Your task to perform on an android device: install app "Gmail" Image 0: 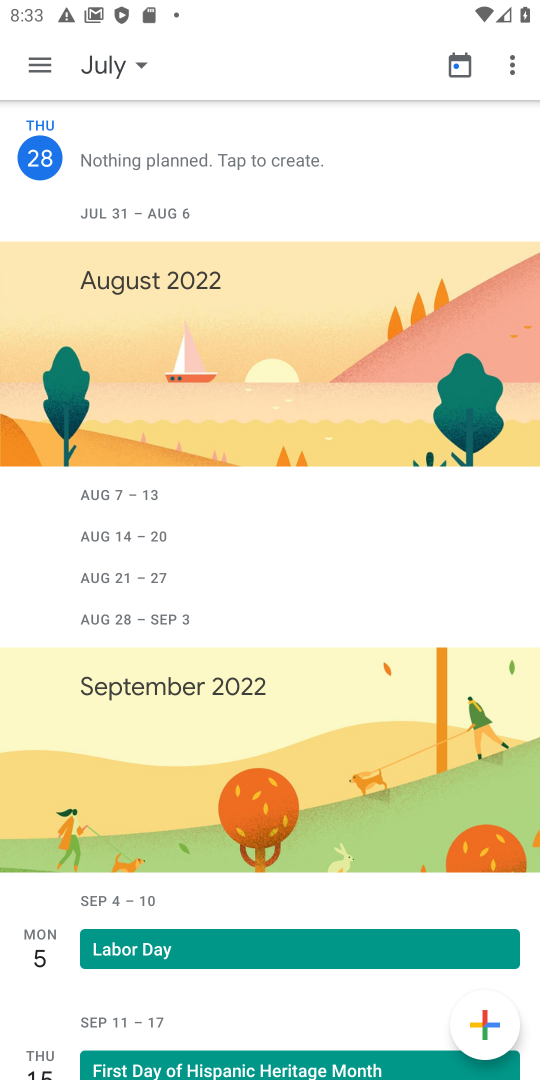
Step 0: press home button
Your task to perform on an android device: install app "Gmail" Image 1: 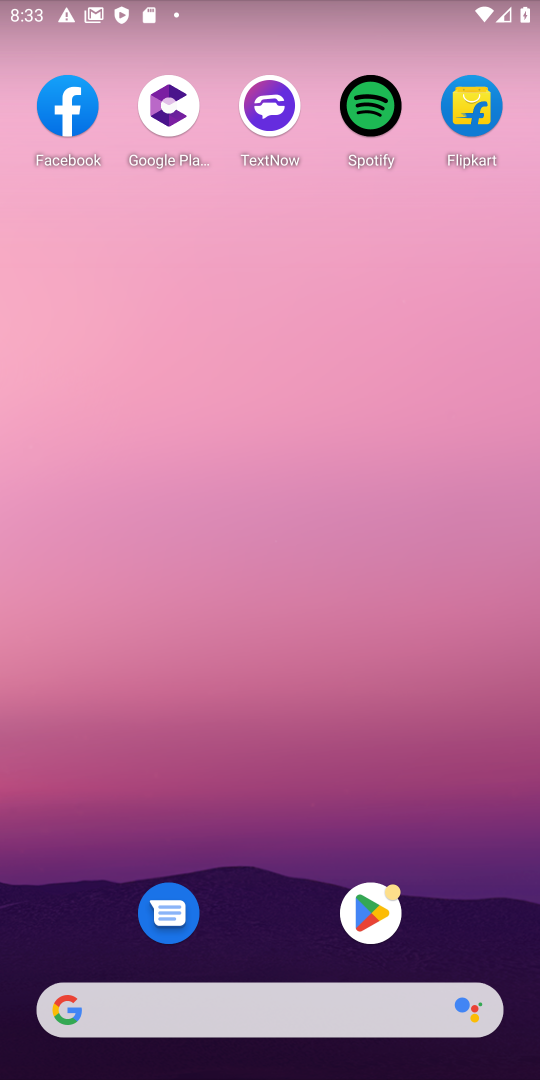
Step 1: click (377, 908)
Your task to perform on an android device: install app "Gmail" Image 2: 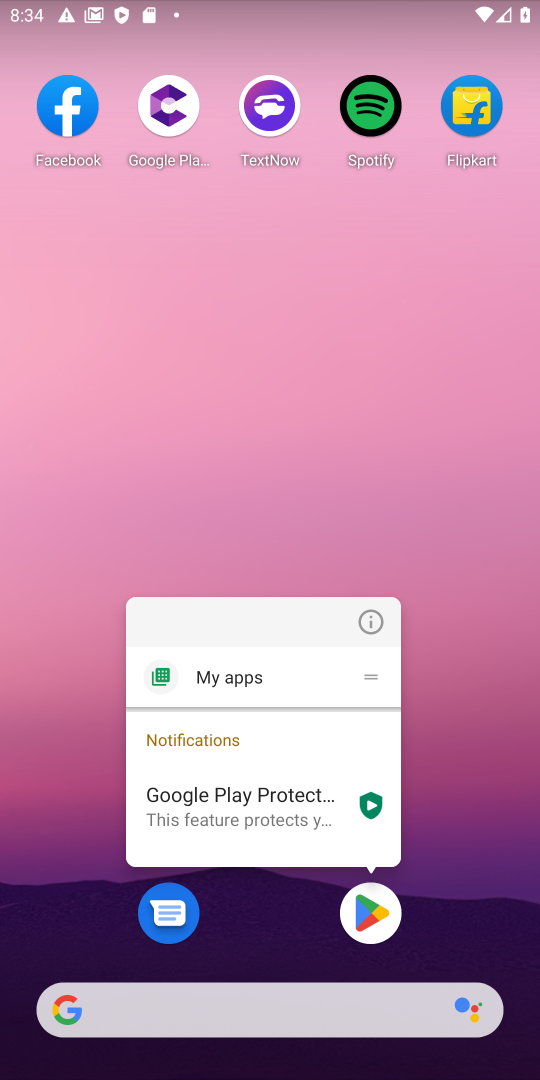
Step 2: click (371, 926)
Your task to perform on an android device: install app "Gmail" Image 3: 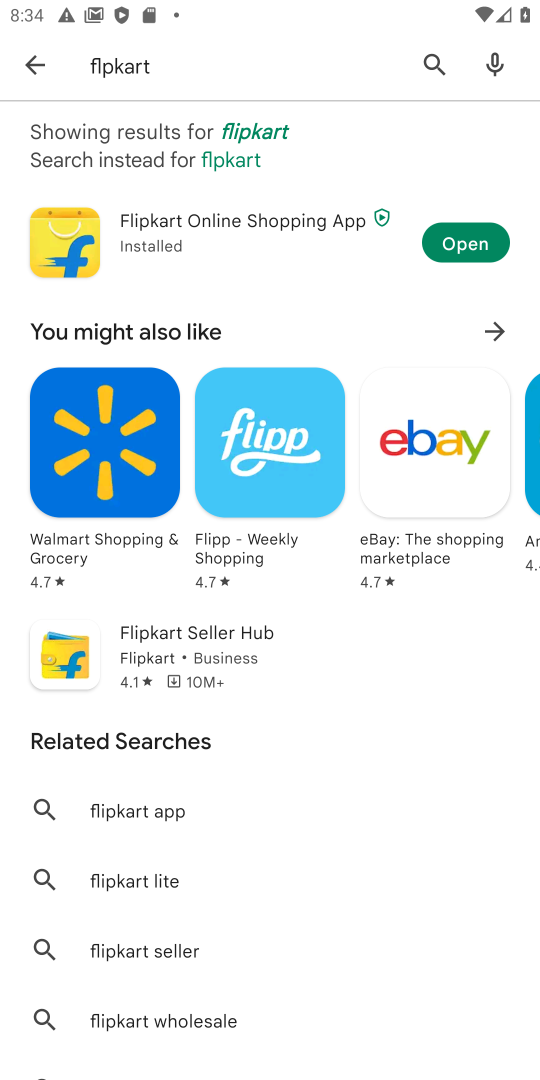
Step 3: click (432, 72)
Your task to perform on an android device: install app "Gmail" Image 4: 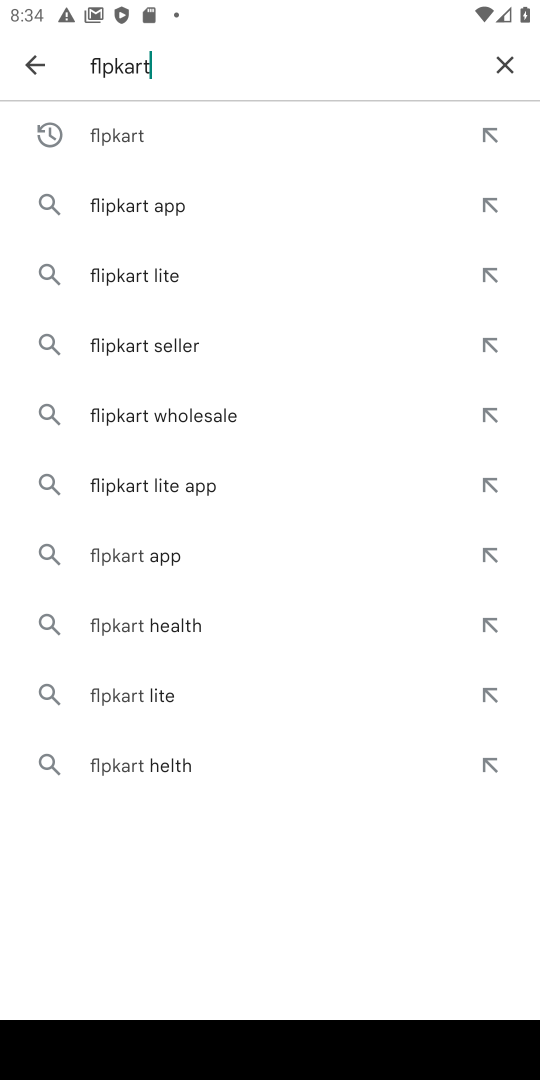
Step 4: click (499, 63)
Your task to perform on an android device: install app "Gmail" Image 5: 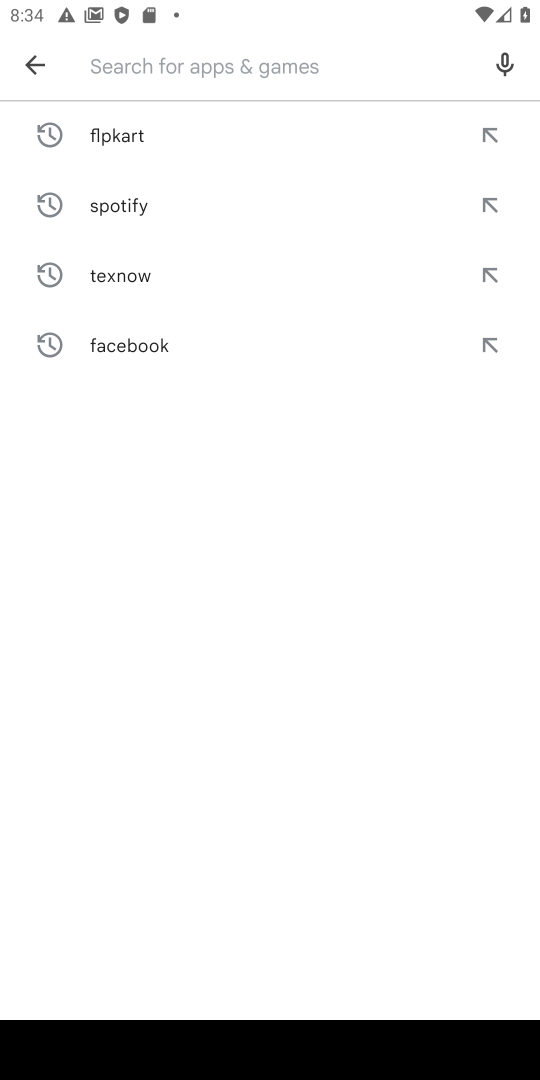
Step 5: type "gmail"
Your task to perform on an android device: install app "Gmail" Image 6: 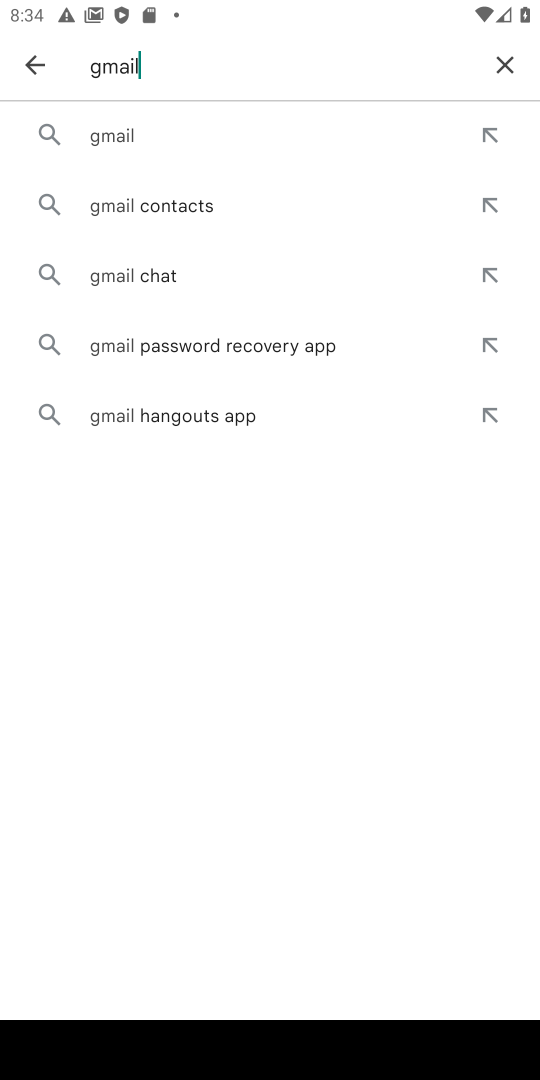
Step 6: click (214, 128)
Your task to perform on an android device: install app "Gmail" Image 7: 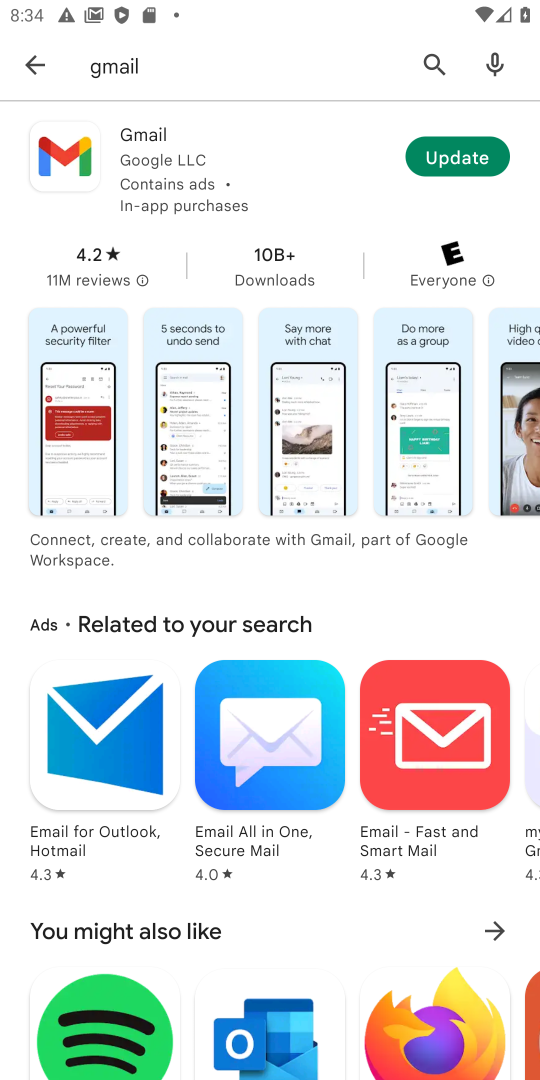
Step 7: click (460, 148)
Your task to perform on an android device: install app "Gmail" Image 8: 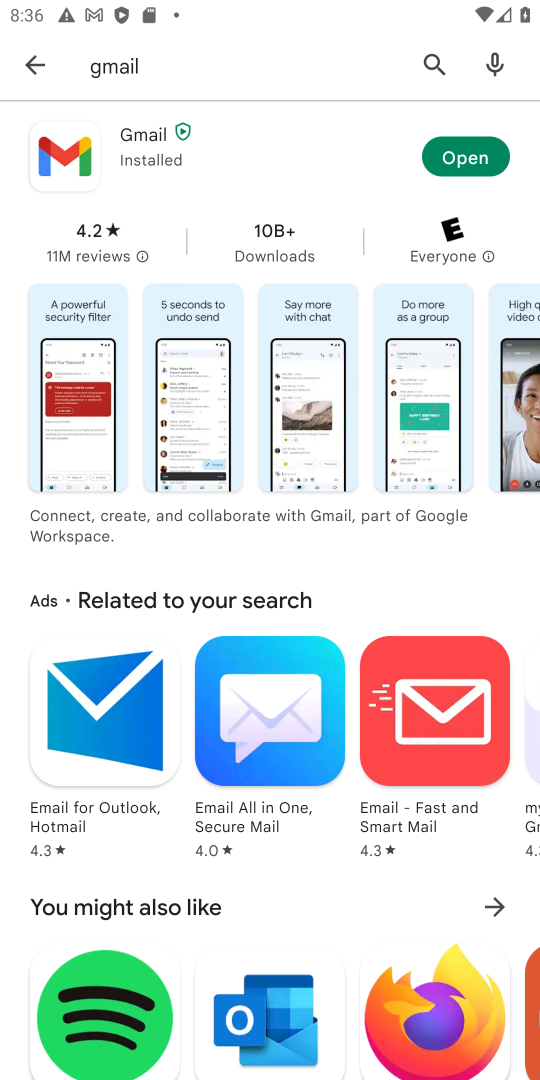
Step 8: task complete